Your task to perform on an android device: see sites visited before in the chrome app Image 0: 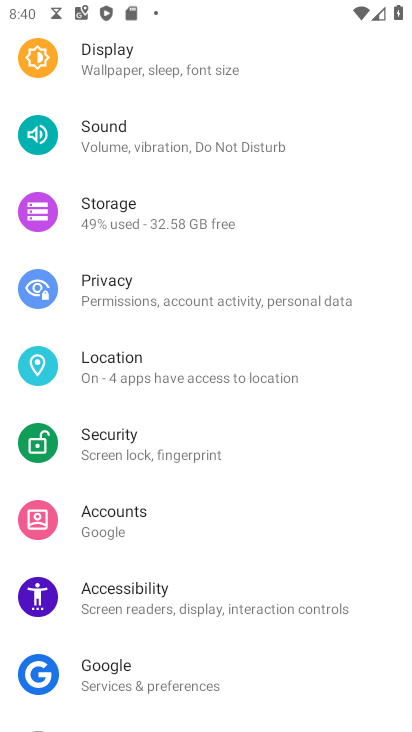
Step 0: press home button
Your task to perform on an android device: see sites visited before in the chrome app Image 1: 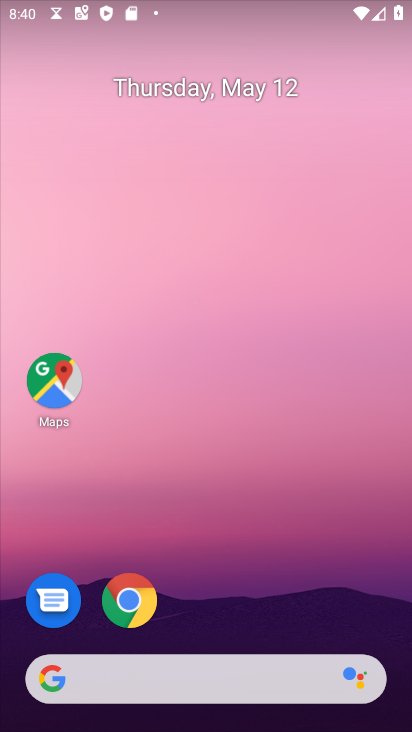
Step 1: drag from (247, 601) to (253, 220)
Your task to perform on an android device: see sites visited before in the chrome app Image 2: 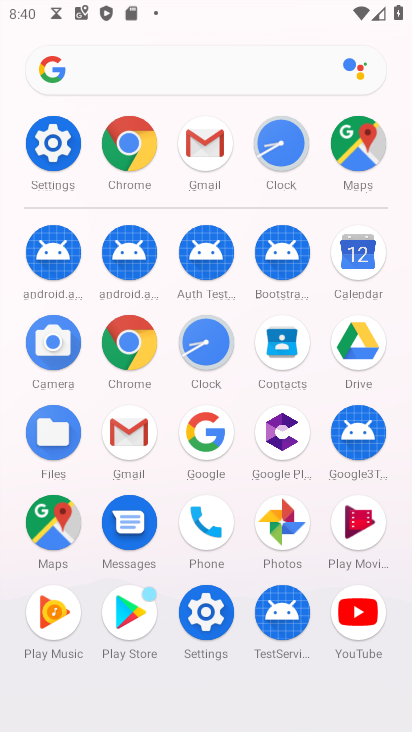
Step 2: click (121, 165)
Your task to perform on an android device: see sites visited before in the chrome app Image 3: 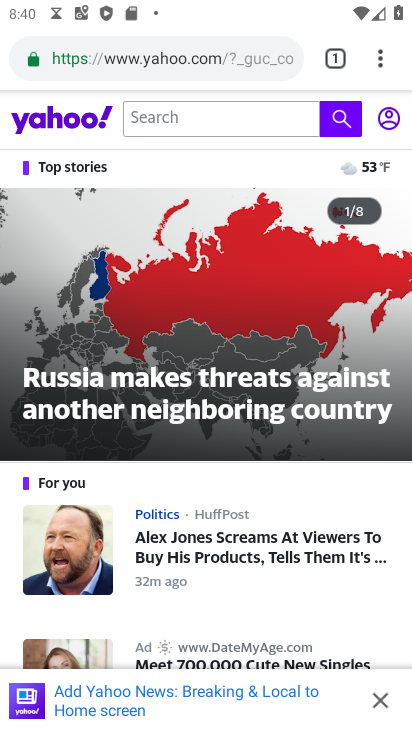
Step 3: click (384, 55)
Your task to perform on an android device: see sites visited before in the chrome app Image 4: 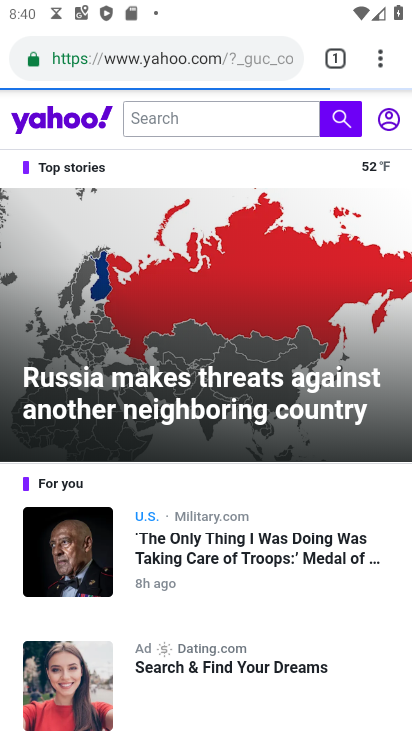
Step 4: click (384, 55)
Your task to perform on an android device: see sites visited before in the chrome app Image 5: 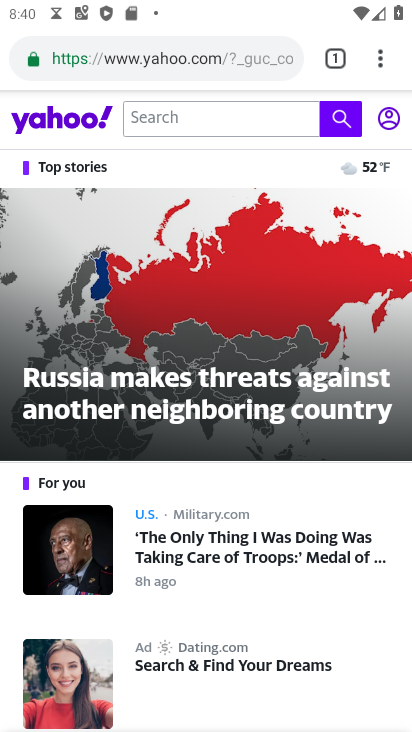
Step 5: click (378, 64)
Your task to perform on an android device: see sites visited before in the chrome app Image 6: 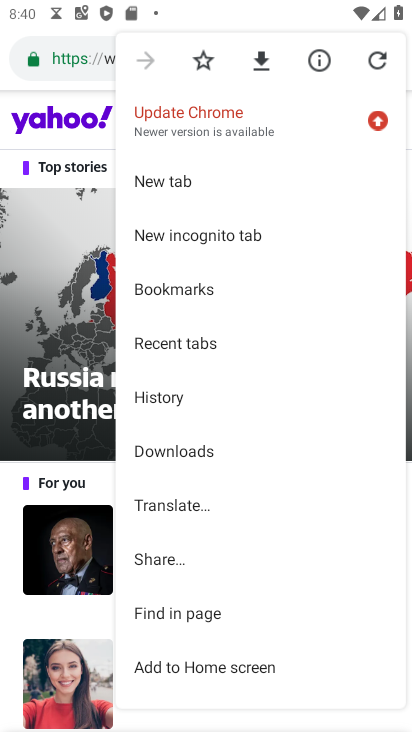
Step 6: click (162, 398)
Your task to perform on an android device: see sites visited before in the chrome app Image 7: 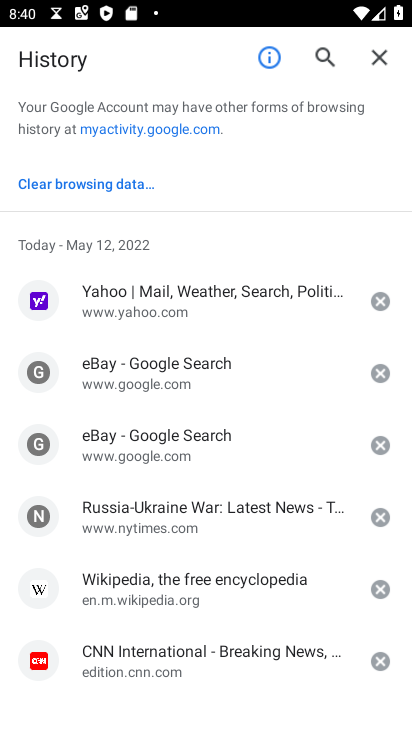
Step 7: task complete